Your task to perform on an android device: search for starred emails in the gmail app Image 0: 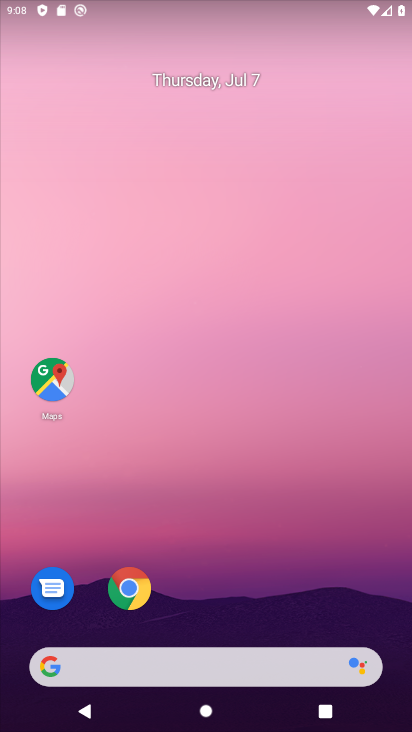
Step 0: drag from (214, 604) to (219, 166)
Your task to perform on an android device: search for starred emails in the gmail app Image 1: 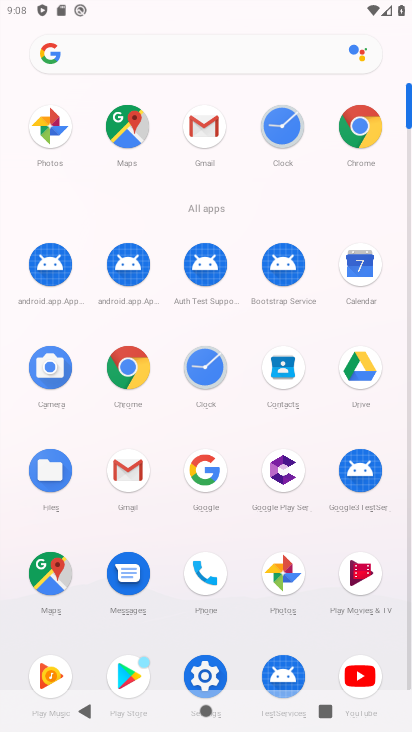
Step 1: click (209, 133)
Your task to perform on an android device: search for starred emails in the gmail app Image 2: 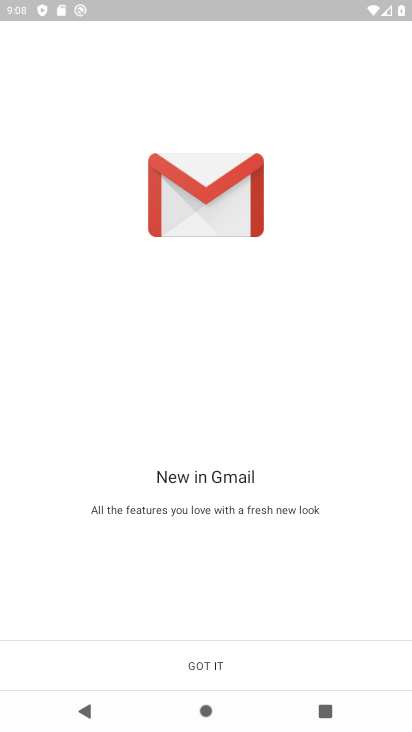
Step 2: click (259, 667)
Your task to perform on an android device: search for starred emails in the gmail app Image 3: 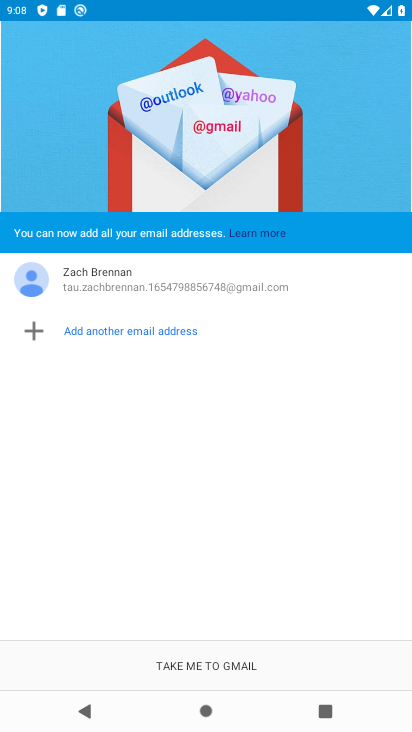
Step 3: click (259, 667)
Your task to perform on an android device: search for starred emails in the gmail app Image 4: 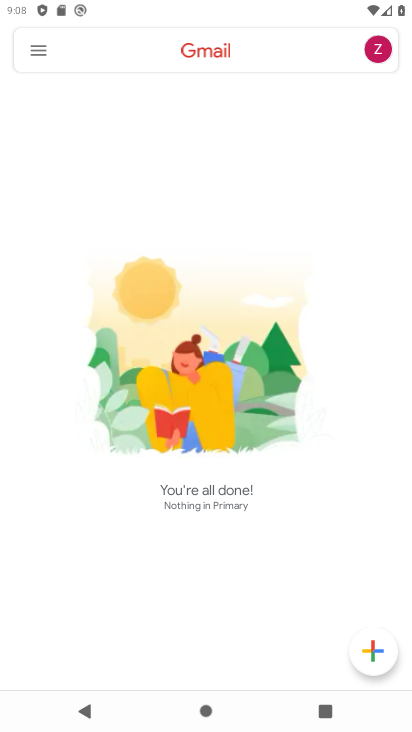
Step 4: click (31, 60)
Your task to perform on an android device: search for starred emails in the gmail app Image 5: 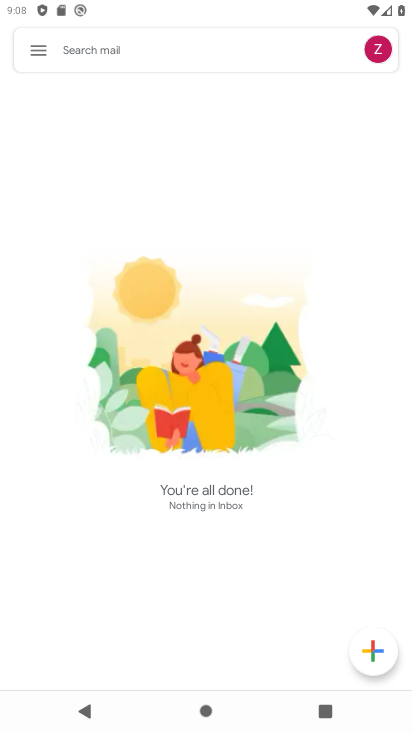
Step 5: click (43, 42)
Your task to perform on an android device: search for starred emails in the gmail app Image 6: 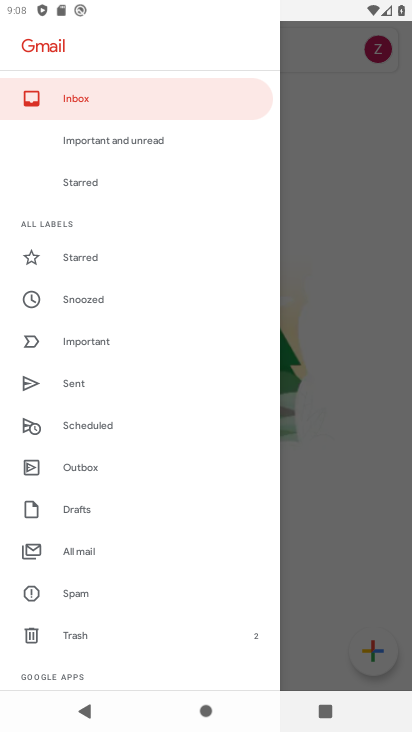
Step 6: click (68, 256)
Your task to perform on an android device: search for starred emails in the gmail app Image 7: 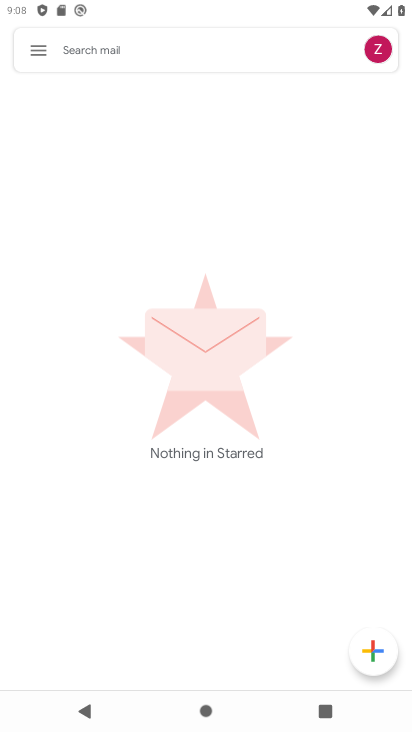
Step 7: task complete